Your task to perform on an android device: Open settings on Google Maps Image 0: 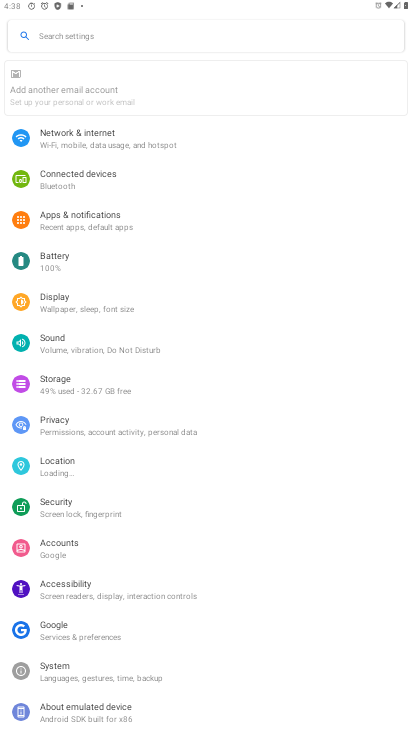
Step 0: drag from (225, 614) to (272, 310)
Your task to perform on an android device: Open settings on Google Maps Image 1: 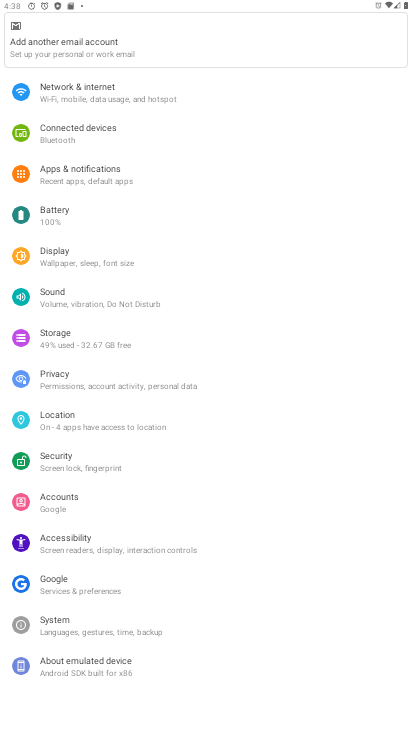
Step 1: press home button
Your task to perform on an android device: Open settings on Google Maps Image 2: 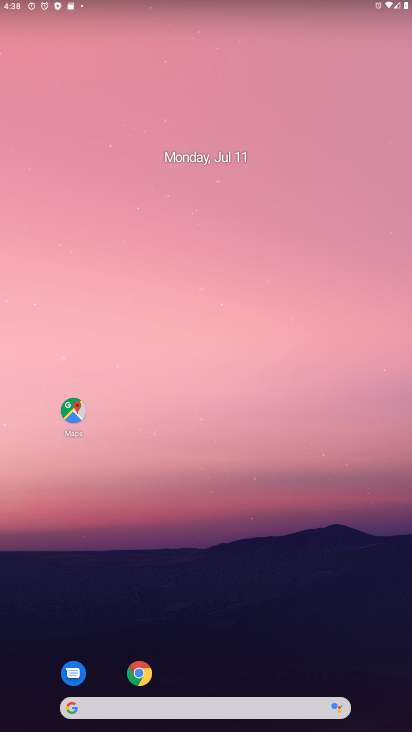
Step 2: click (66, 405)
Your task to perform on an android device: Open settings on Google Maps Image 3: 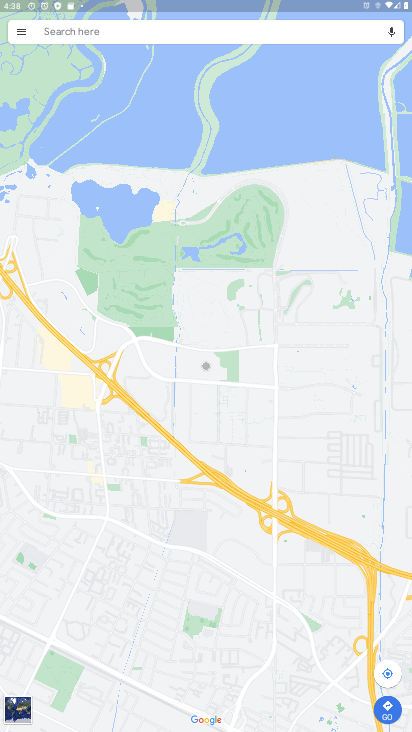
Step 3: click (16, 26)
Your task to perform on an android device: Open settings on Google Maps Image 4: 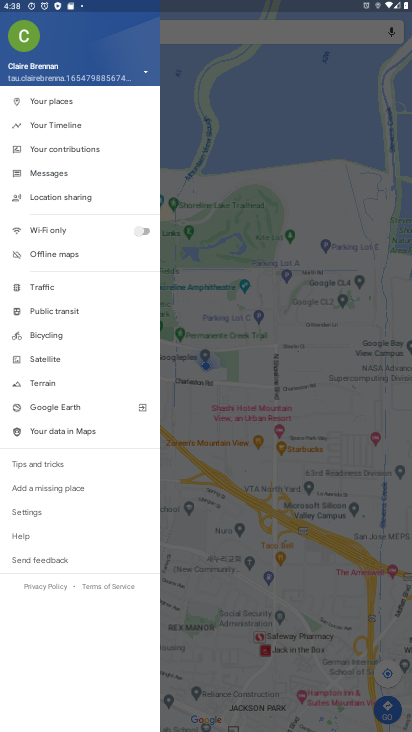
Step 4: click (31, 507)
Your task to perform on an android device: Open settings on Google Maps Image 5: 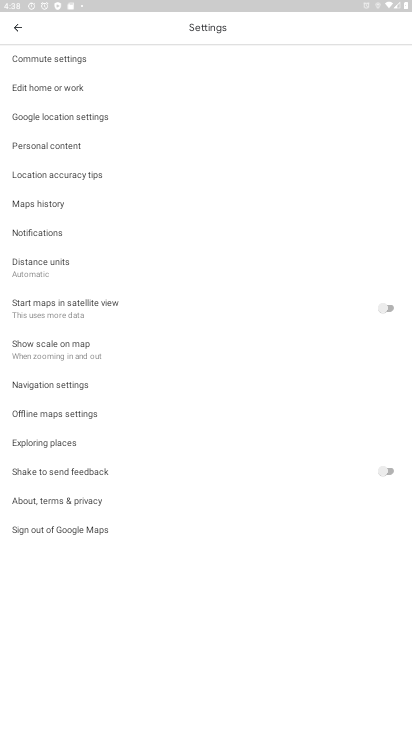
Step 5: task complete